Your task to perform on an android device: Open settings on Google Maps Image 0: 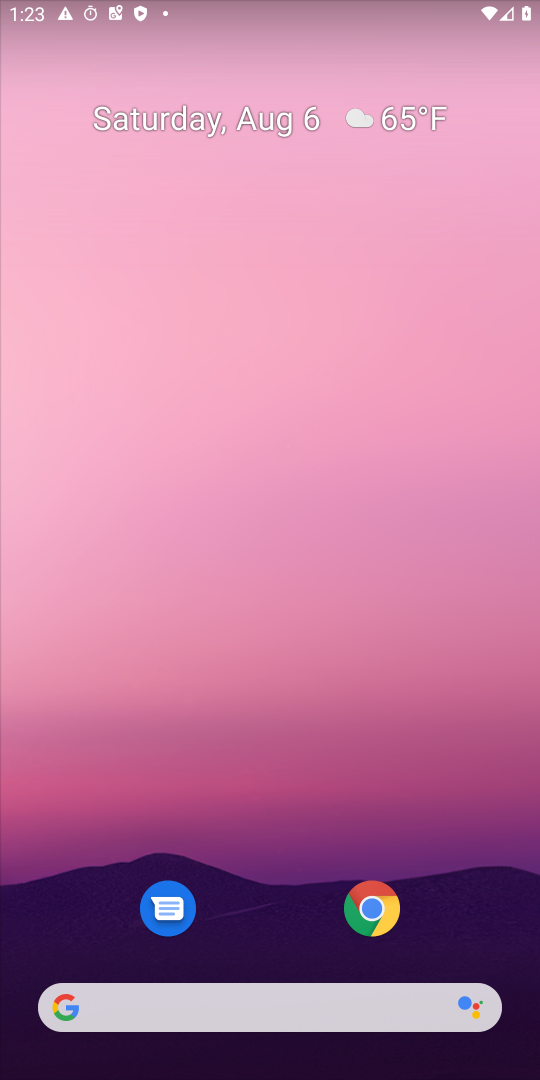
Step 0: drag from (263, 866) to (263, 323)
Your task to perform on an android device: Open settings on Google Maps Image 1: 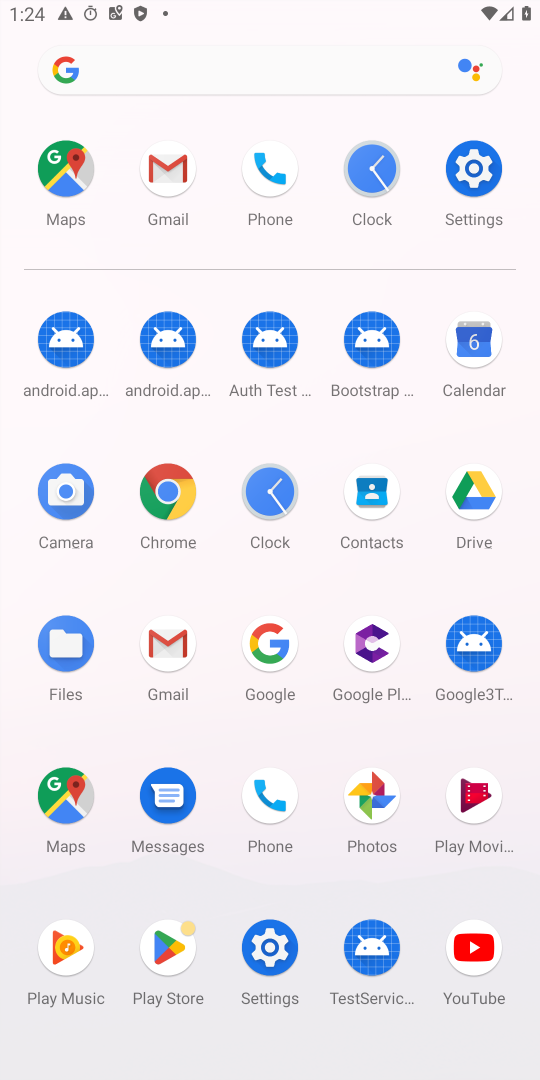
Step 1: click (50, 798)
Your task to perform on an android device: Open settings on Google Maps Image 2: 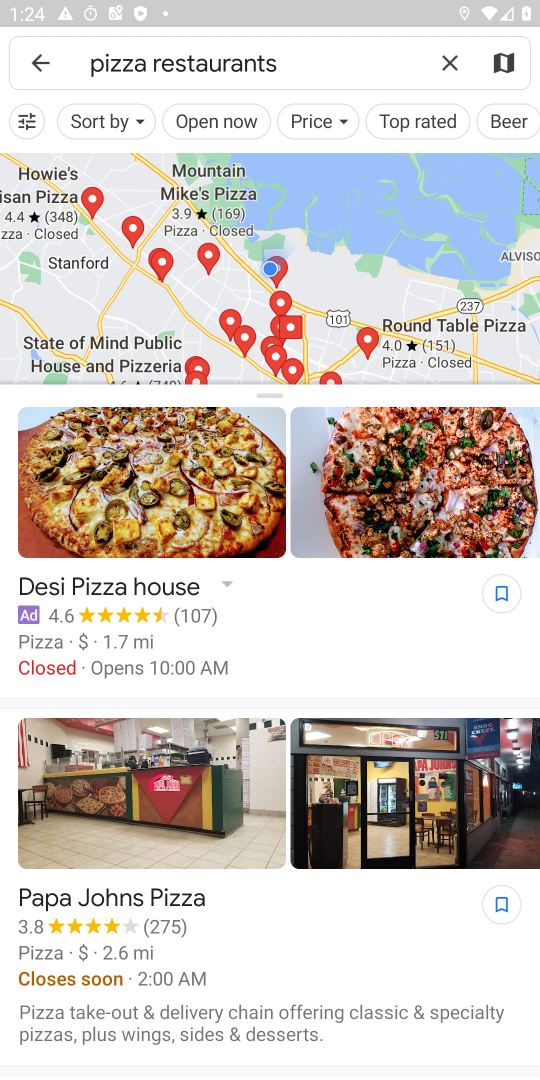
Step 2: click (31, 71)
Your task to perform on an android device: Open settings on Google Maps Image 3: 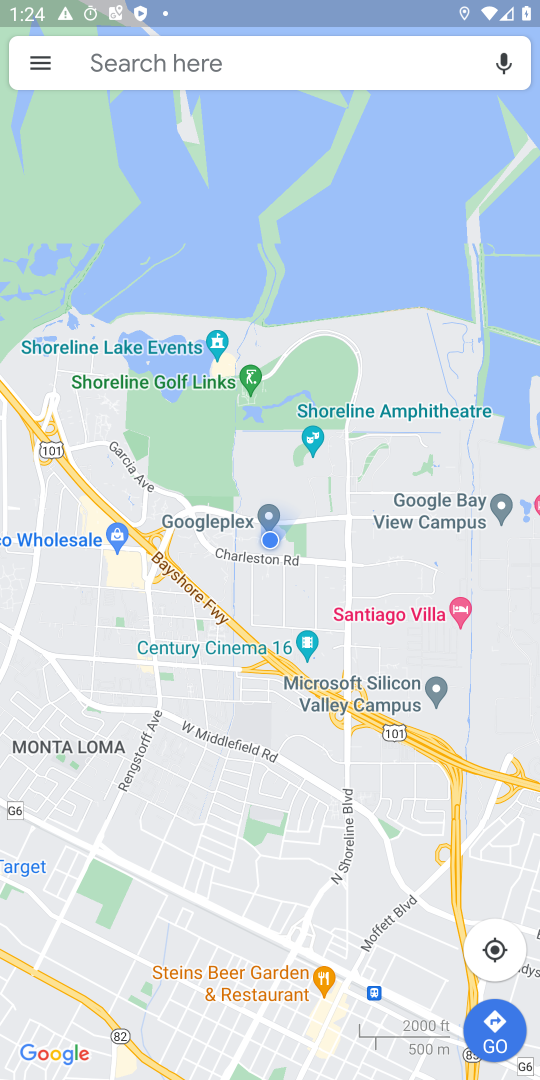
Step 3: click (31, 71)
Your task to perform on an android device: Open settings on Google Maps Image 4: 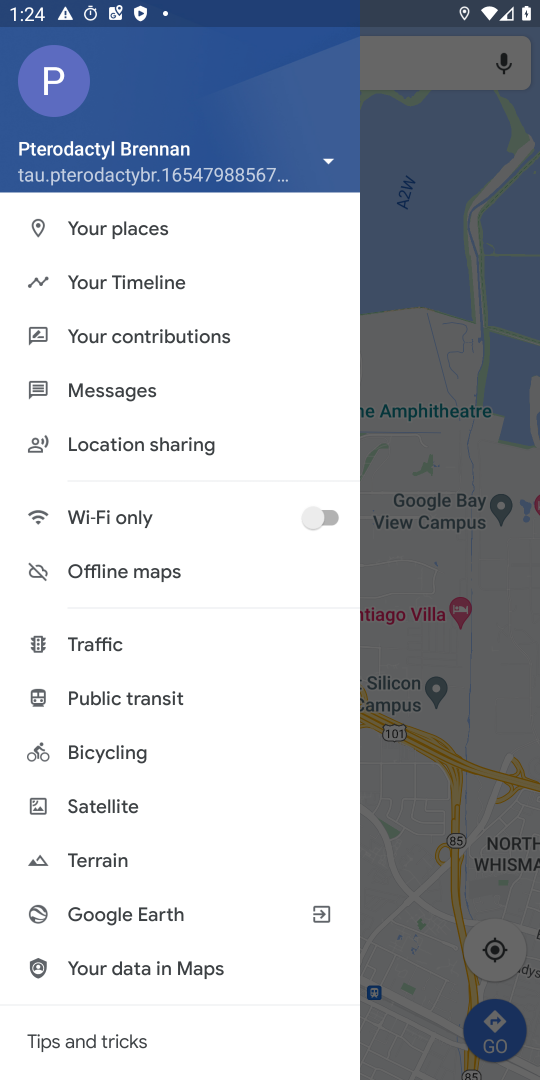
Step 4: drag from (146, 739) to (107, 359)
Your task to perform on an android device: Open settings on Google Maps Image 5: 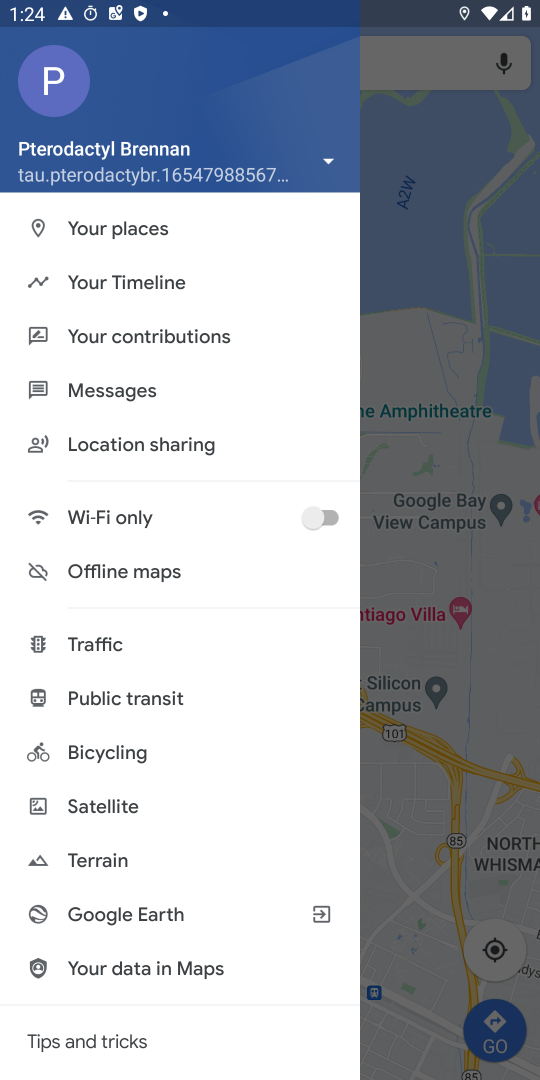
Step 5: drag from (116, 978) to (99, 570)
Your task to perform on an android device: Open settings on Google Maps Image 6: 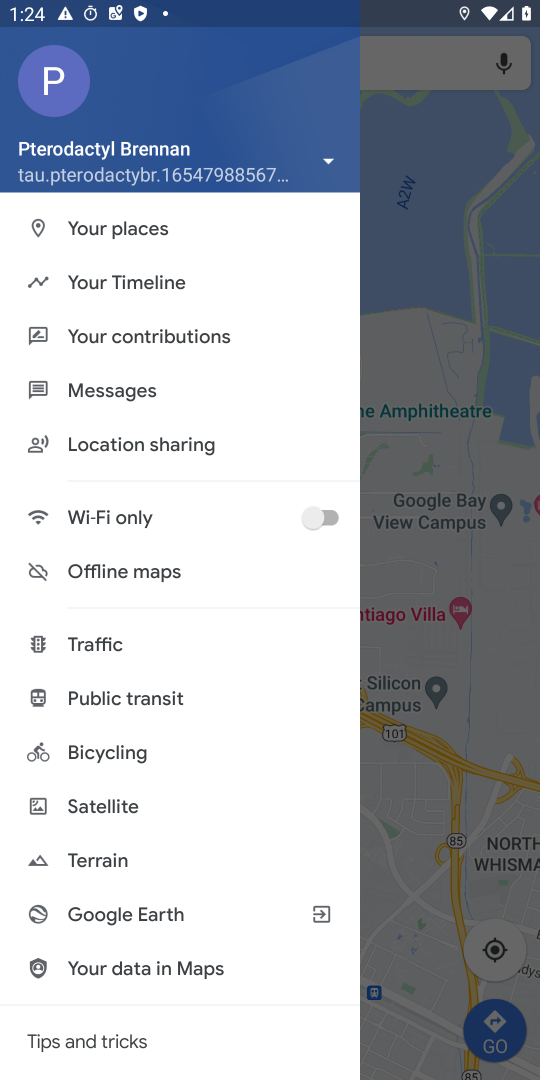
Step 6: drag from (89, 1015) to (88, 659)
Your task to perform on an android device: Open settings on Google Maps Image 7: 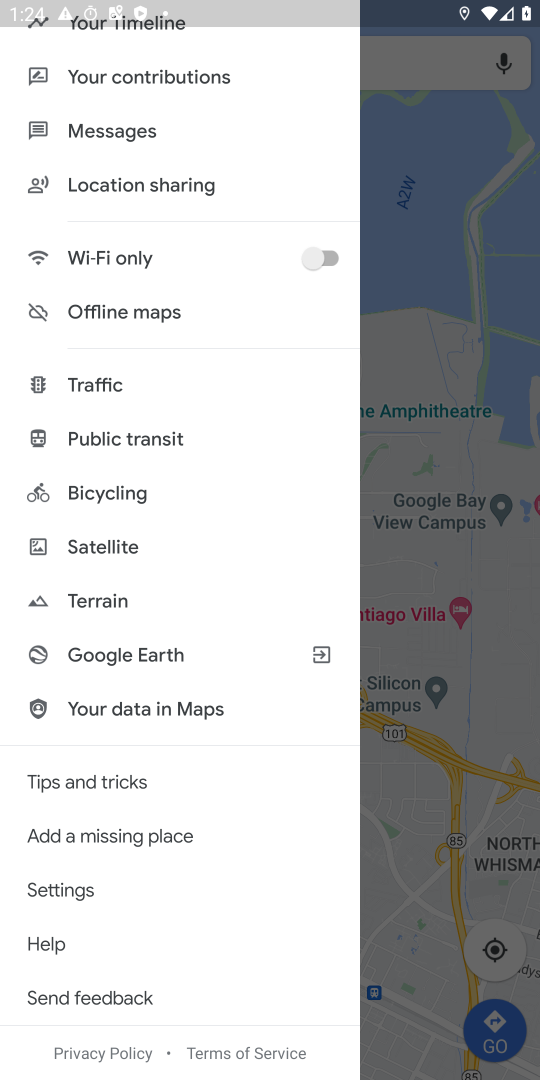
Step 7: click (74, 894)
Your task to perform on an android device: Open settings on Google Maps Image 8: 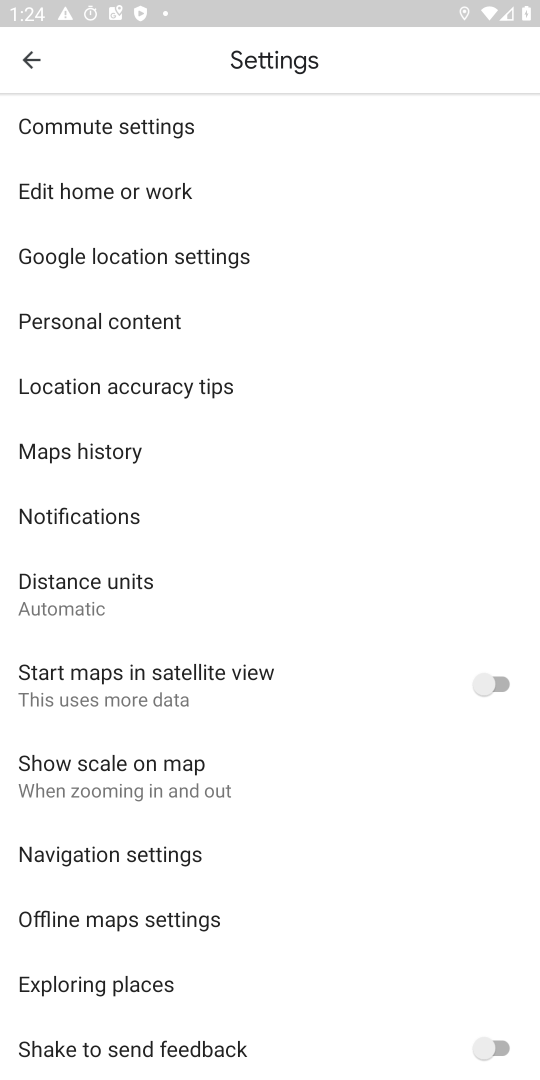
Step 8: task complete